Your task to perform on an android device: change the clock display to analog Image 0: 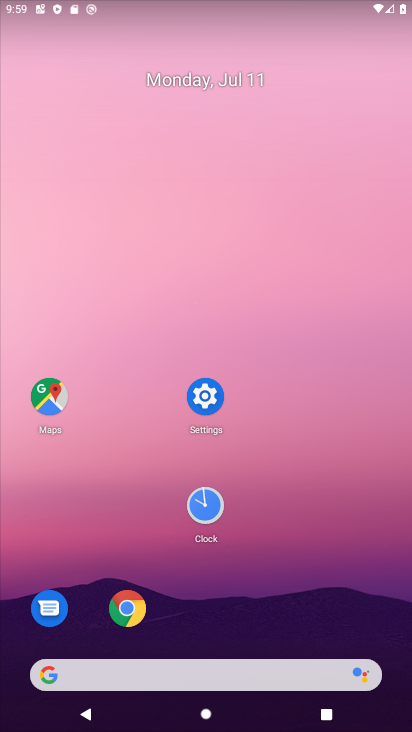
Step 0: click (209, 519)
Your task to perform on an android device: change the clock display to analog Image 1: 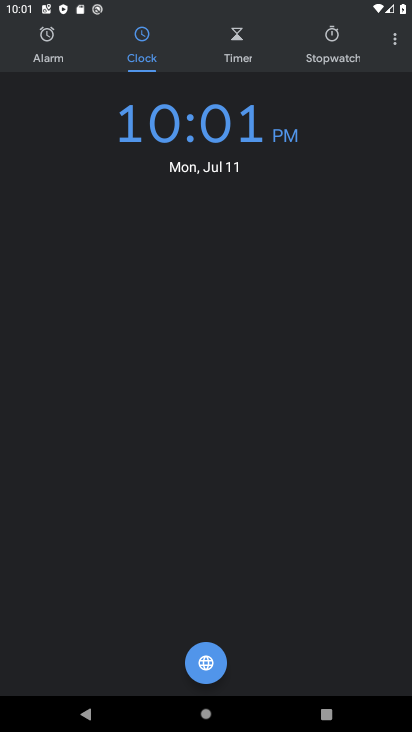
Step 1: click (394, 36)
Your task to perform on an android device: change the clock display to analog Image 2: 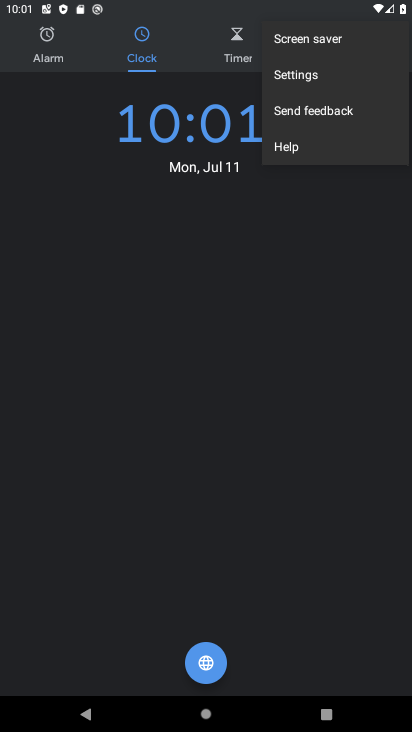
Step 2: click (288, 71)
Your task to perform on an android device: change the clock display to analog Image 3: 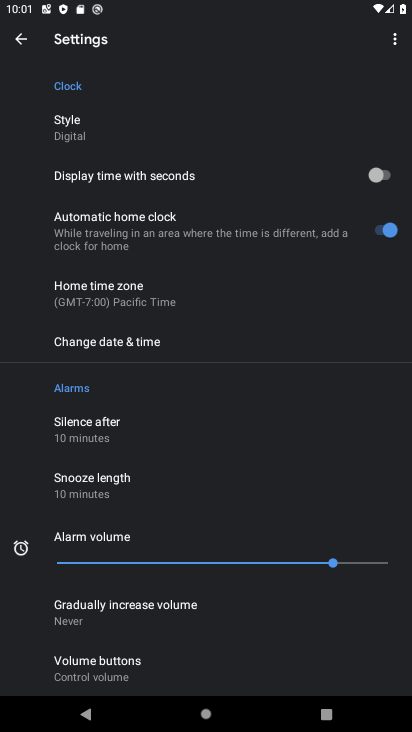
Step 3: click (75, 123)
Your task to perform on an android device: change the clock display to analog Image 4: 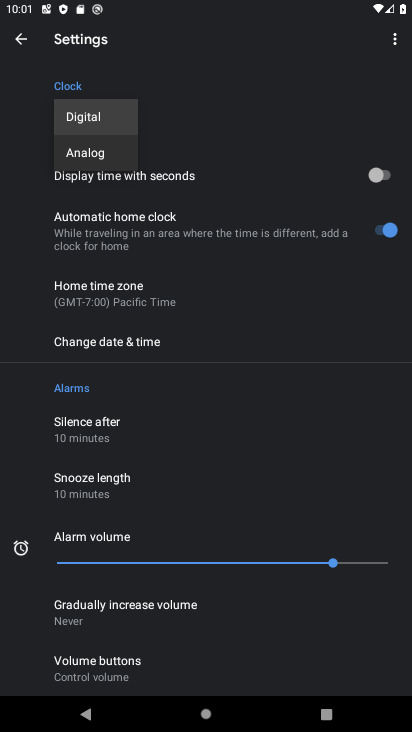
Step 4: click (76, 148)
Your task to perform on an android device: change the clock display to analog Image 5: 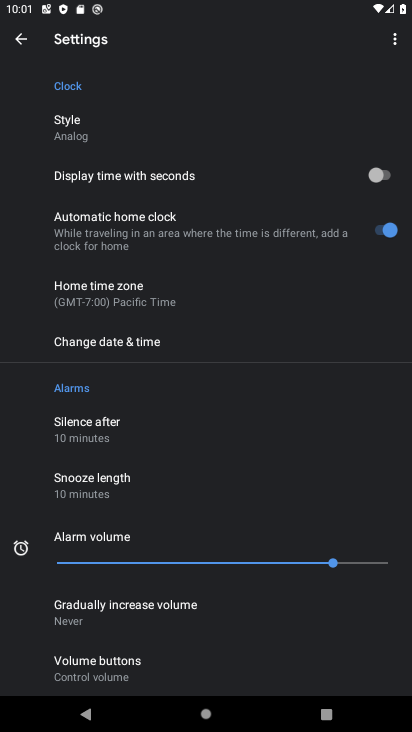
Step 5: task complete